Your task to perform on an android device: Go to battery settings Image 0: 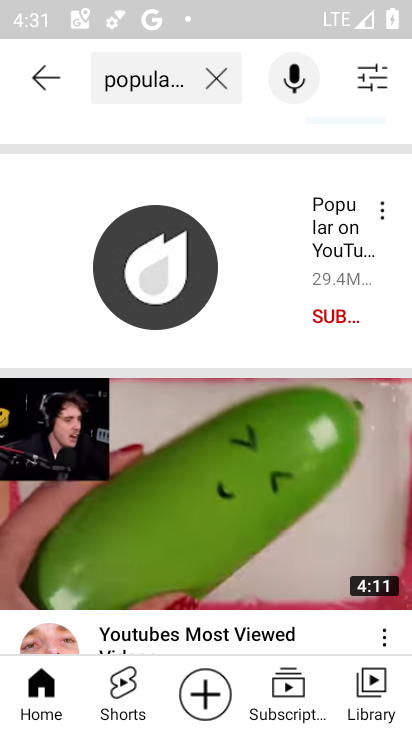
Step 0: press home button
Your task to perform on an android device: Go to battery settings Image 1: 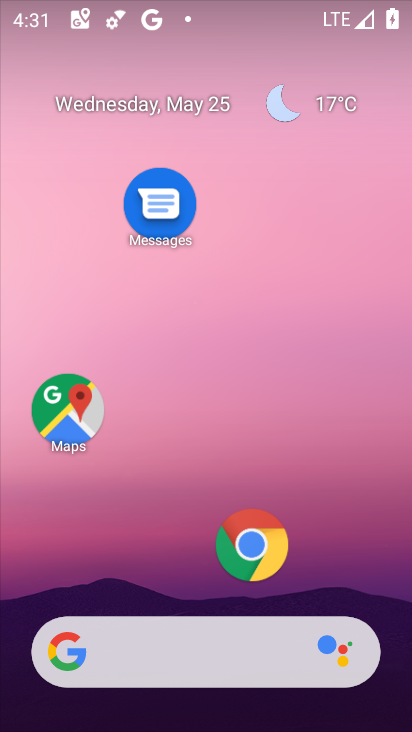
Step 1: drag from (348, 567) to (283, 42)
Your task to perform on an android device: Go to battery settings Image 2: 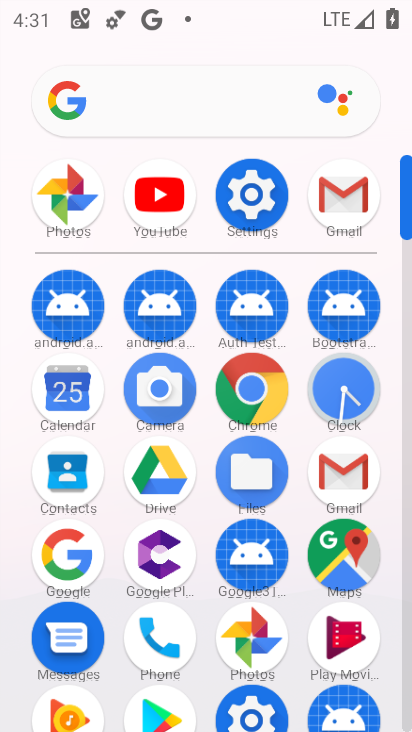
Step 2: click (259, 185)
Your task to perform on an android device: Go to battery settings Image 3: 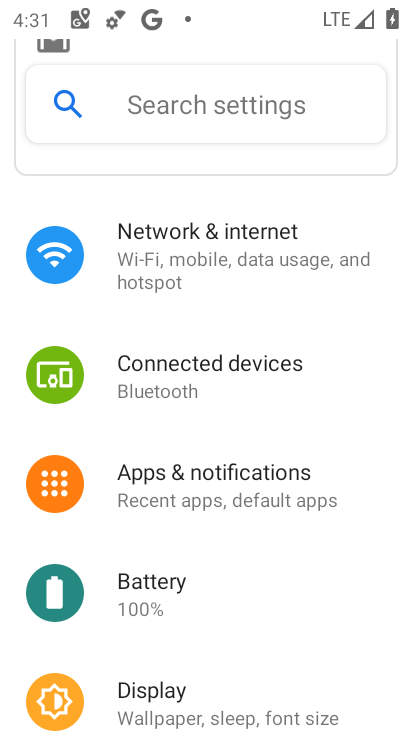
Step 3: click (124, 586)
Your task to perform on an android device: Go to battery settings Image 4: 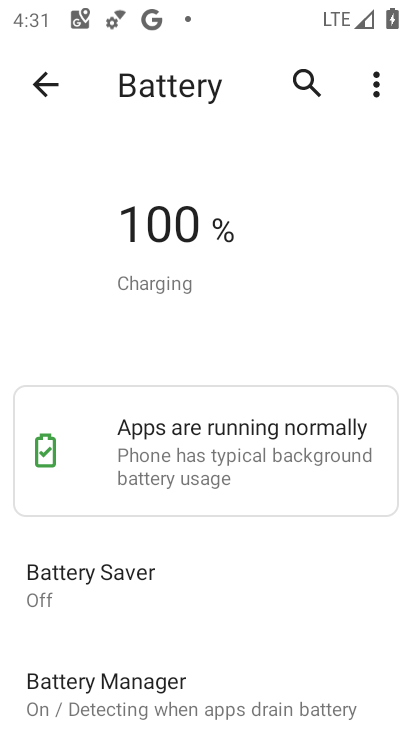
Step 4: task complete